Your task to perform on an android device: Go to Google Image 0: 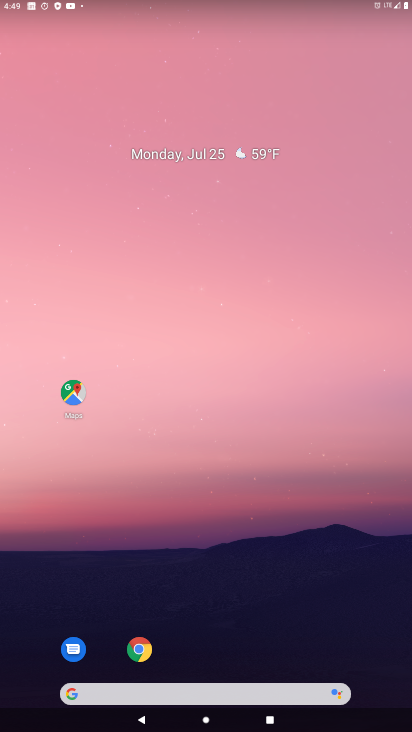
Step 0: drag from (197, 649) to (113, 6)
Your task to perform on an android device: Go to Google Image 1: 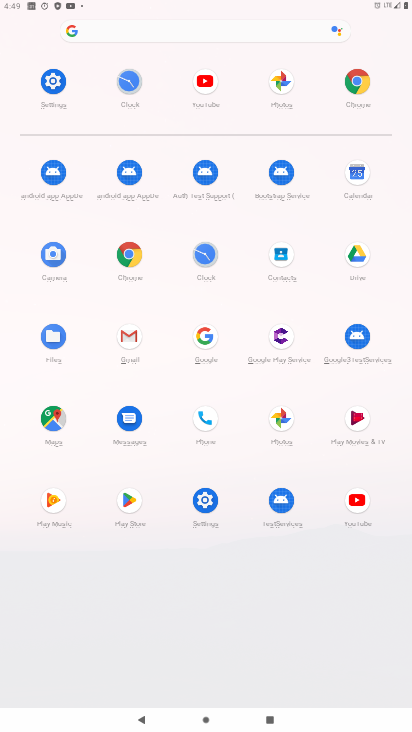
Step 1: click (204, 348)
Your task to perform on an android device: Go to Google Image 2: 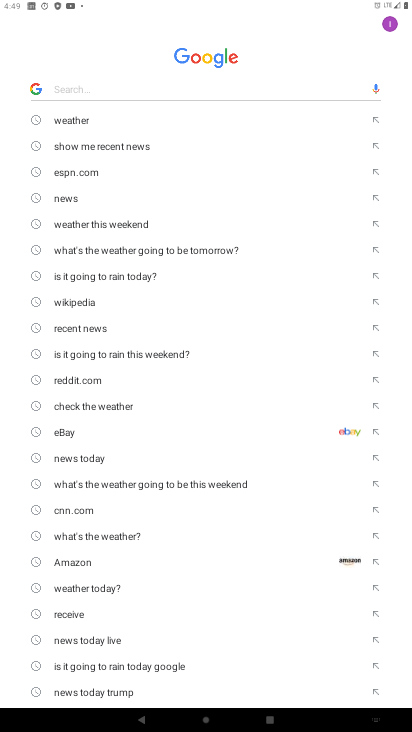
Step 2: task complete